Your task to perform on an android device: Open ESPN.com Image 0: 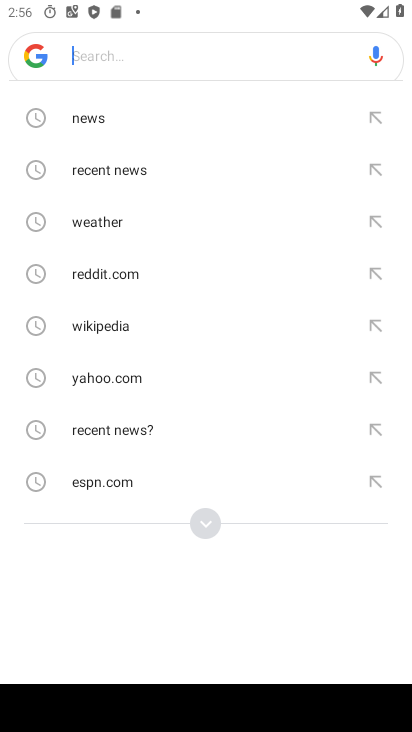
Step 0: press home button
Your task to perform on an android device: Open ESPN.com Image 1: 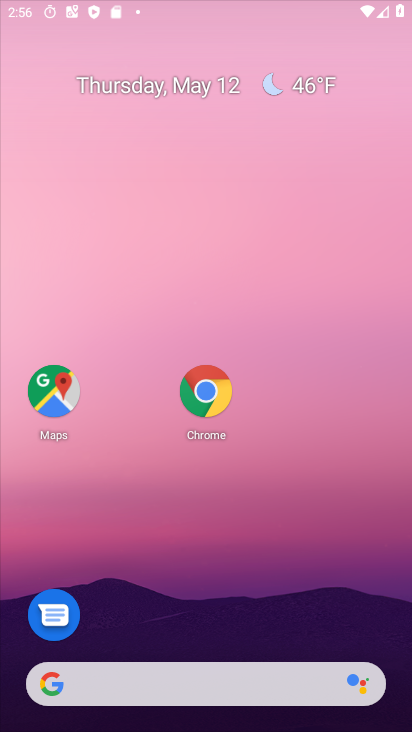
Step 1: drag from (191, 593) to (221, 59)
Your task to perform on an android device: Open ESPN.com Image 2: 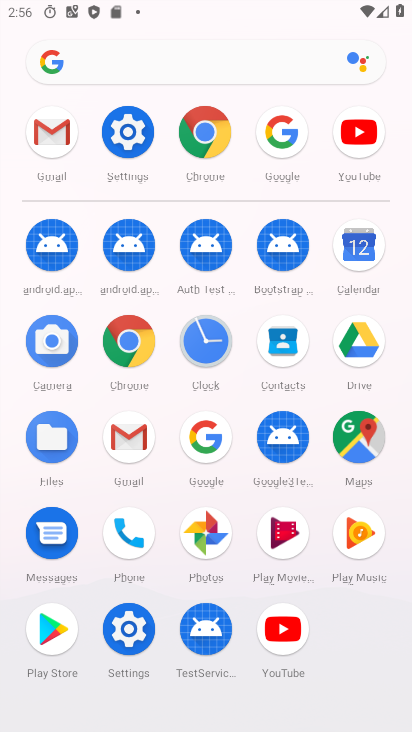
Step 2: click (212, 435)
Your task to perform on an android device: Open ESPN.com Image 3: 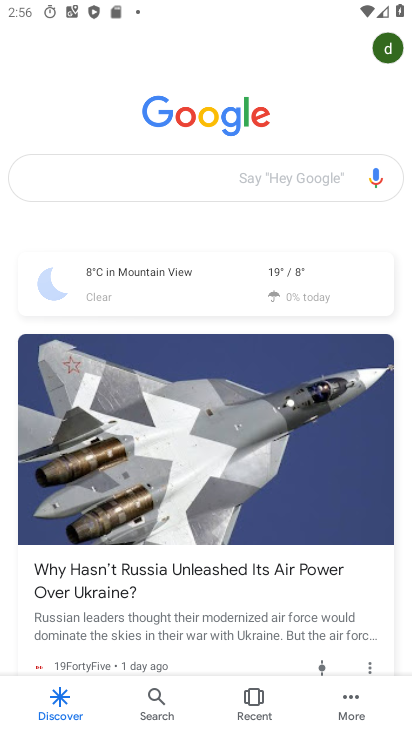
Step 3: click (168, 178)
Your task to perform on an android device: Open ESPN.com Image 4: 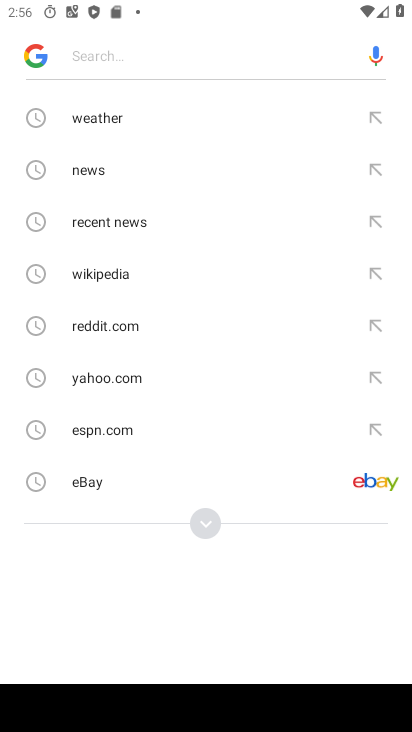
Step 4: click (133, 436)
Your task to perform on an android device: Open ESPN.com Image 5: 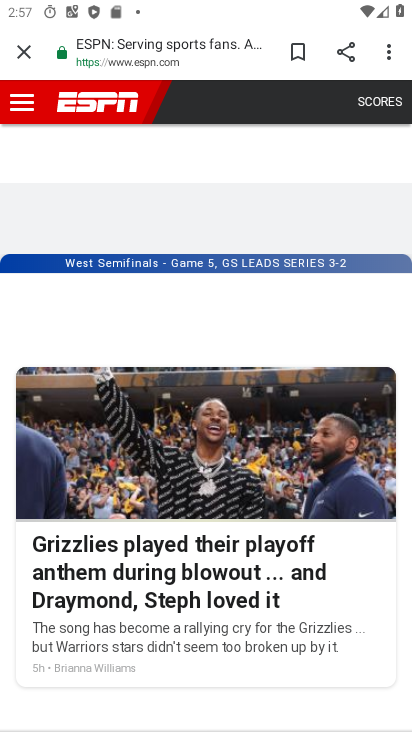
Step 5: task complete